Your task to perform on an android device: all mails in gmail Image 0: 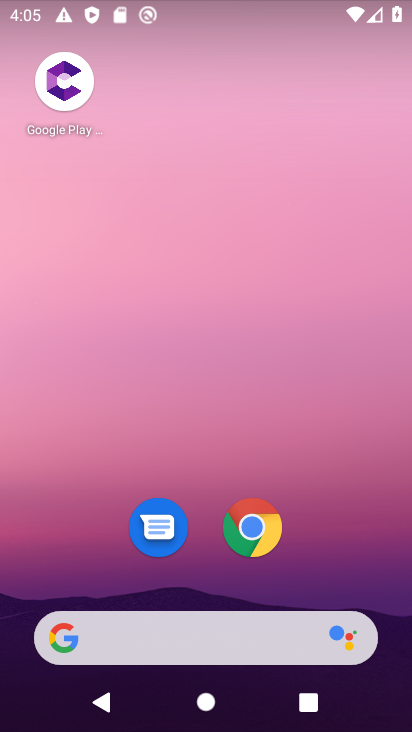
Step 0: drag from (197, 589) to (220, 187)
Your task to perform on an android device: all mails in gmail Image 1: 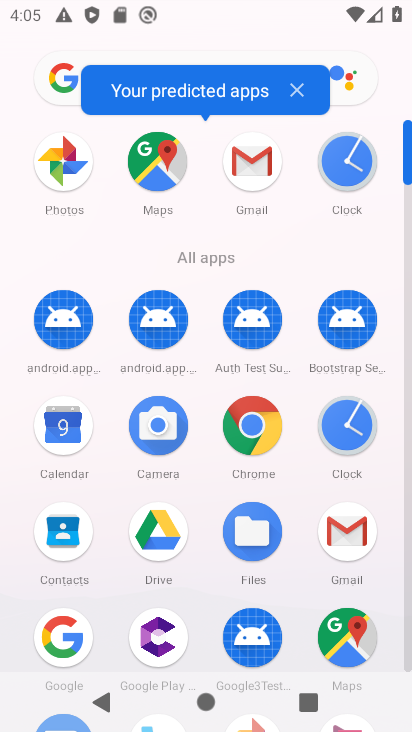
Step 1: click (276, 186)
Your task to perform on an android device: all mails in gmail Image 2: 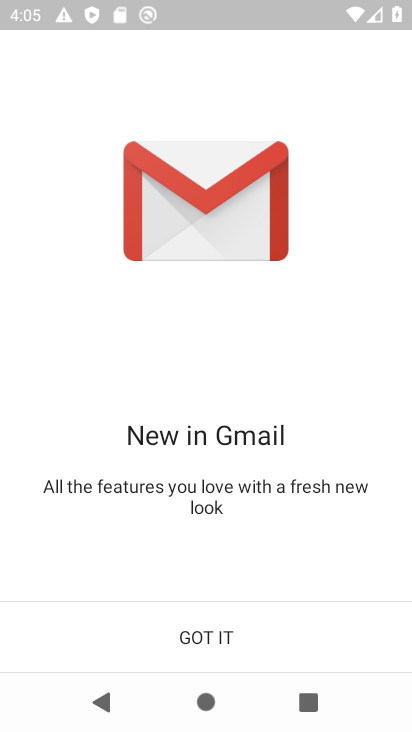
Step 2: click (154, 617)
Your task to perform on an android device: all mails in gmail Image 3: 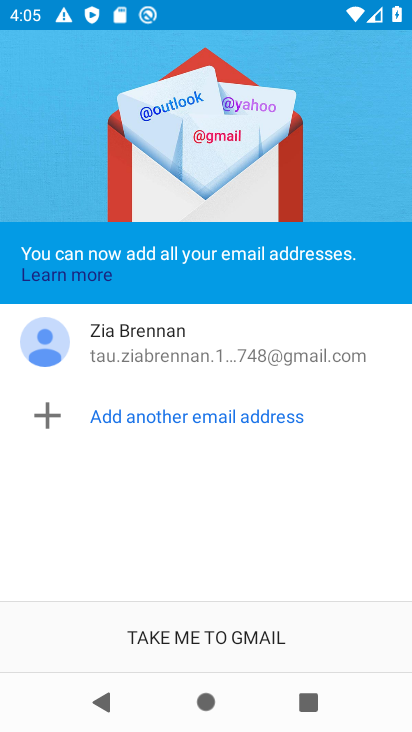
Step 3: click (154, 617)
Your task to perform on an android device: all mails in gmail Image 4: 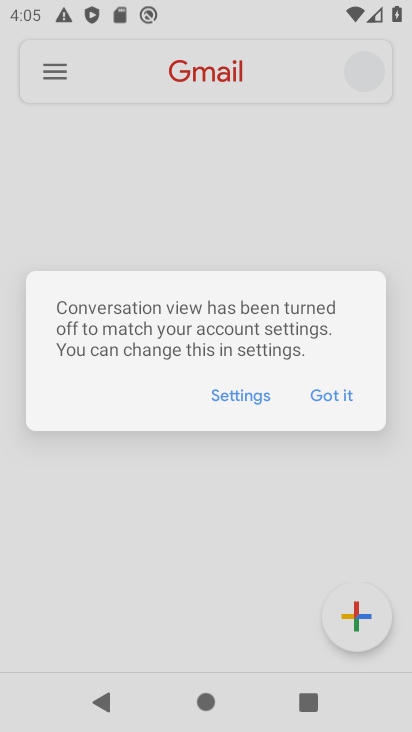
Step 4: click (154, 629)
Your task to perform on an android device: all mails in gmail Image 5: 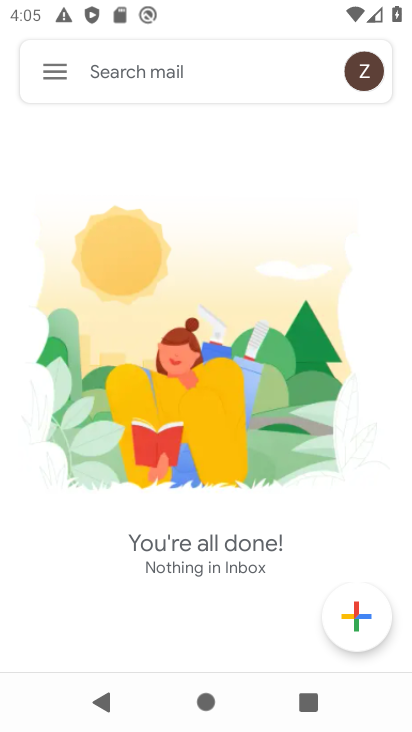
Step 5: click (64, 68)
Your task to perform on an android device: all mails in gmail Image 6: 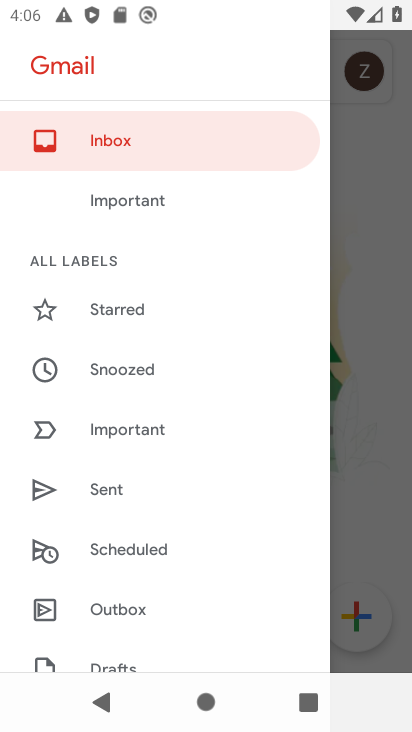
Step 6: drag from (217, 455) to (271, 67)
Your task to perform on an android device: all mails in gmail Image 7: 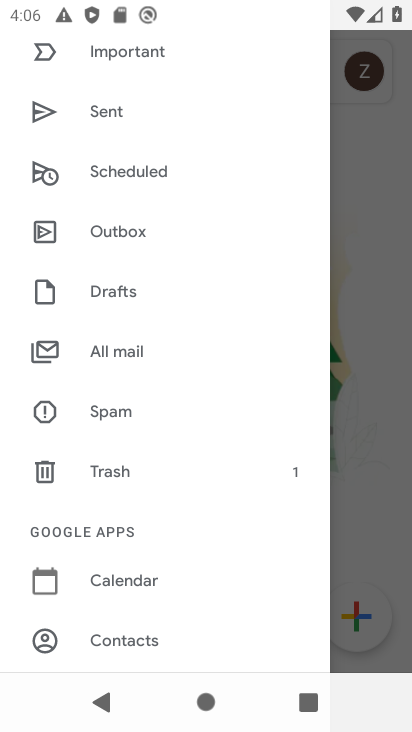
Step 7: click (49, 342)
Your task to perform on an android device: all mails in gmail Image 8: 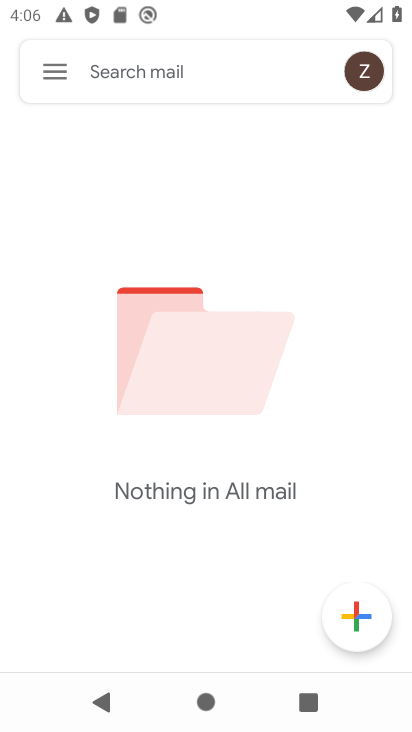
Step 8: task complete